Your task to perform on an android device: Open eBay Image 0: 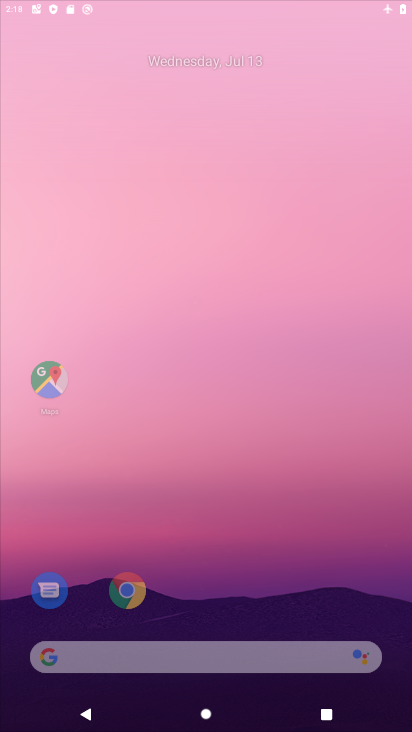
Step 0: drag from (175, 309) to (179, 179)
Your task to perform on an android device: Open eBay Image 1: 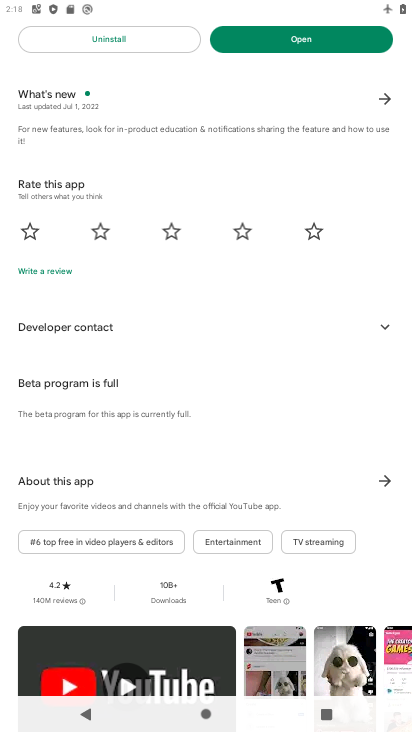
Step 1: press back button
Your task to perform on an android device: Open eBay Image 2: 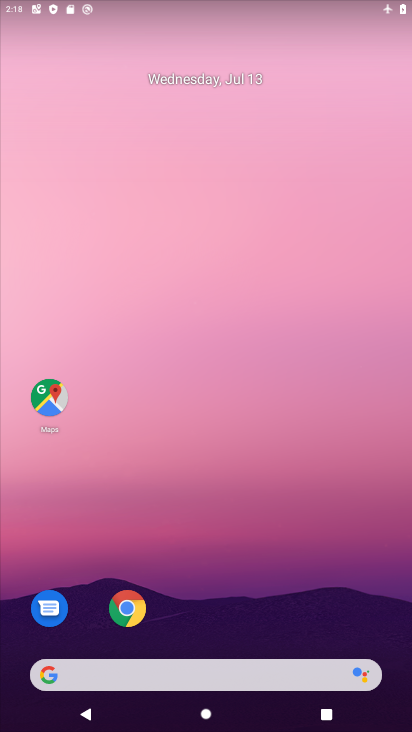
Step 2: drag from (229, 565) to (239, 148)
Your task to perform on an android device: Open eBay Image 3: 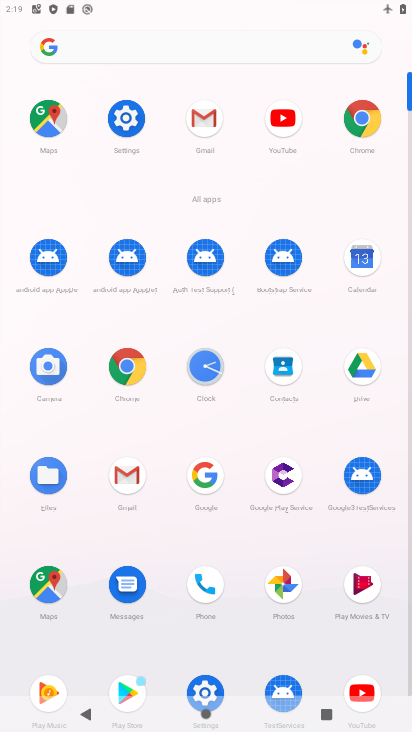
Step 3: click (359, 137)
Your task to perform on an android device: Open eBay Image 4: 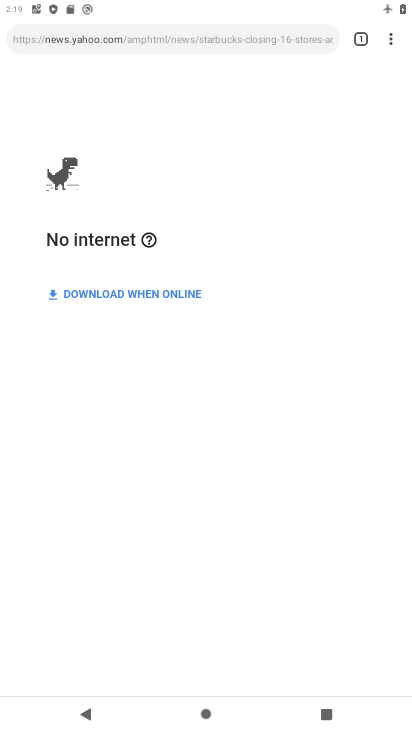
Step 4: press back button
Your task to perform on an android device: Open eBay Image 5: 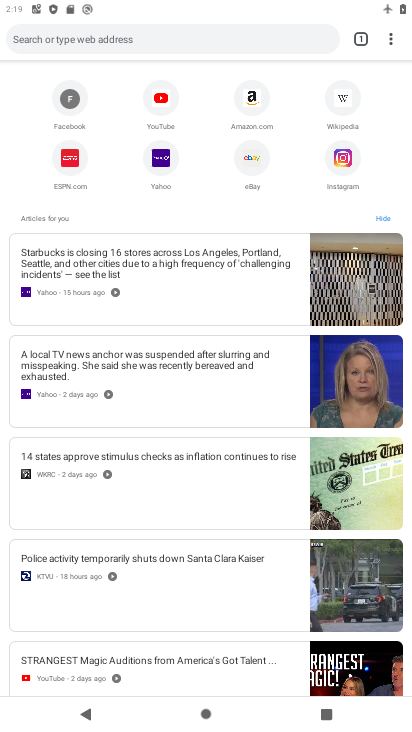
Step 5: click (245, 162)
Your task to perform on an android device: Open eBay Image 6: 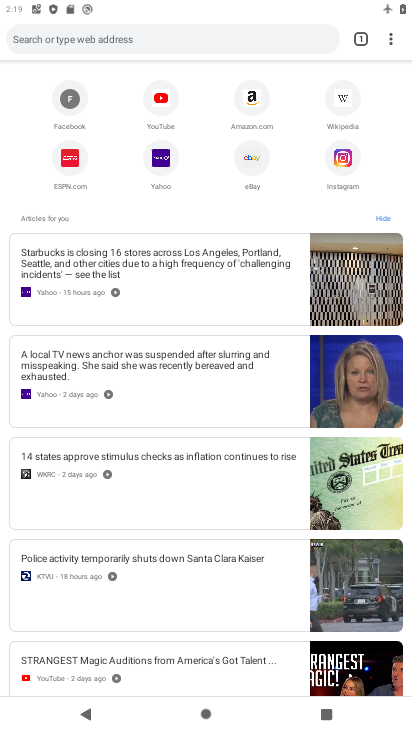
Step 6: click (247, 157)
Your task to perform on an android device: Open eBay Image 7: 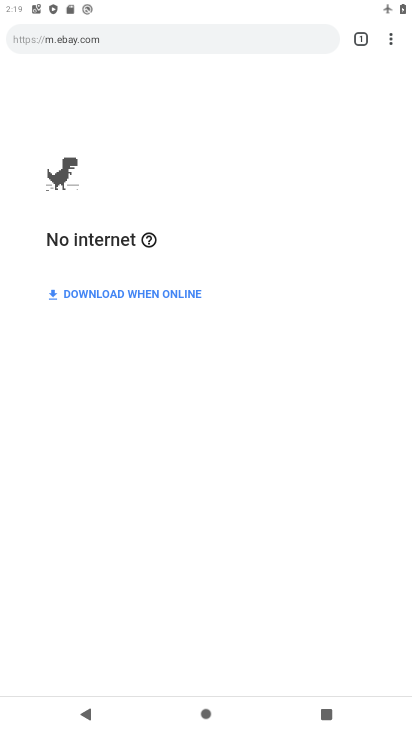
Step 7: press back button
Your task to perform on an android device: Open eBay Image 8: 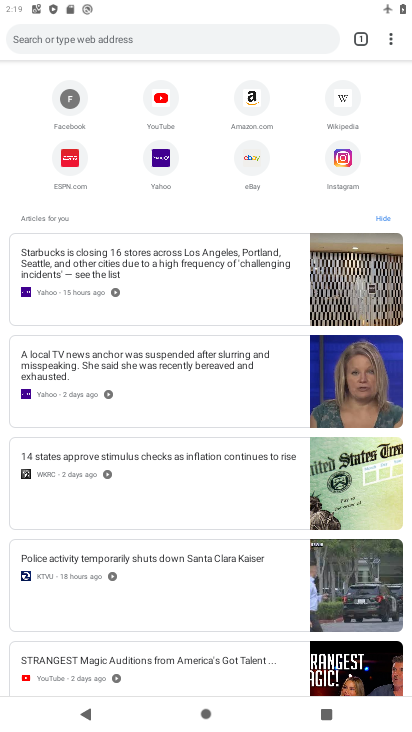
Step 8: press back button
Your task to perform on an android device: Open eBay Image 9: 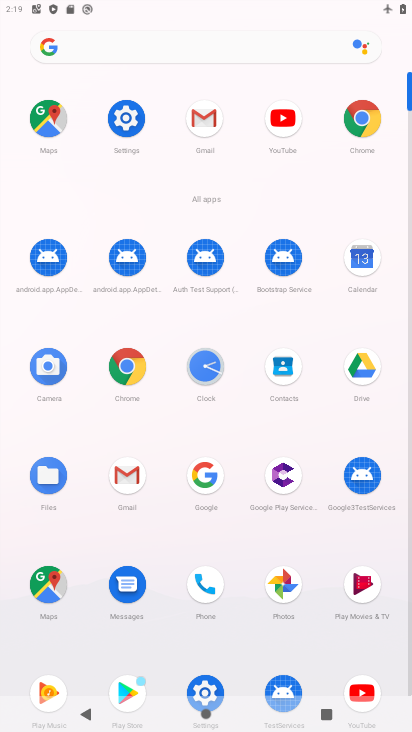
Step 9: click (121, 118)
Your task to perform on an android device: Open eBay Image 10: 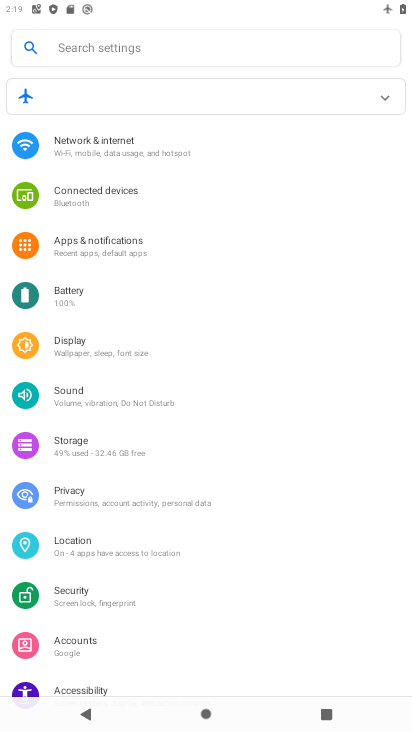
Step 10: click (68, 610)
Your task to perform on an android device: Open eBay Image 11: 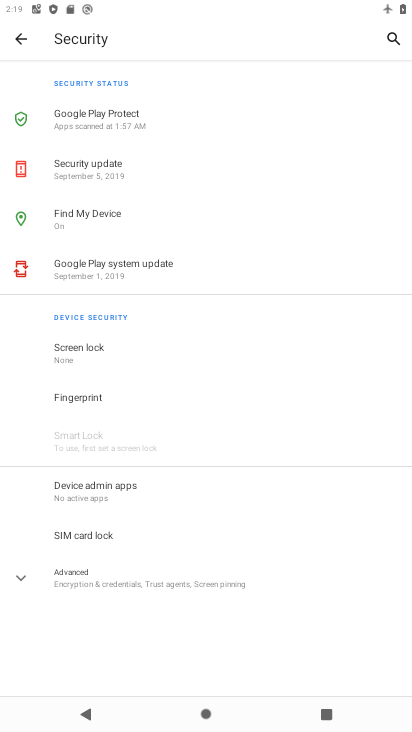
Step 11: click (20, 36)
Your task to perform on an android device: Open eBay Image 12: 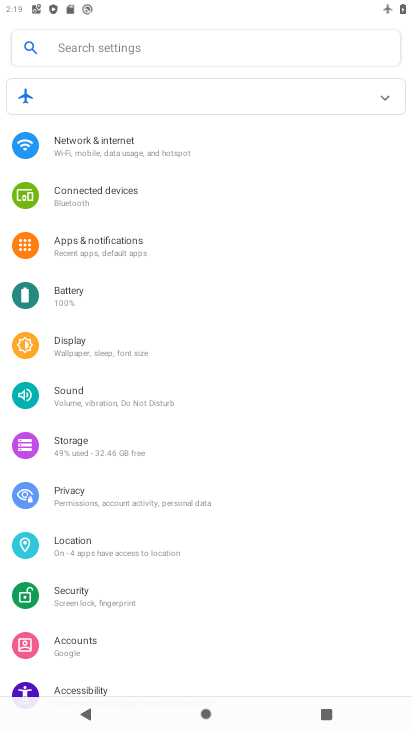
Step 12: drag from (70, 581) to (122, 256)
Your task to perform on an android device: Open eBay Image 13: 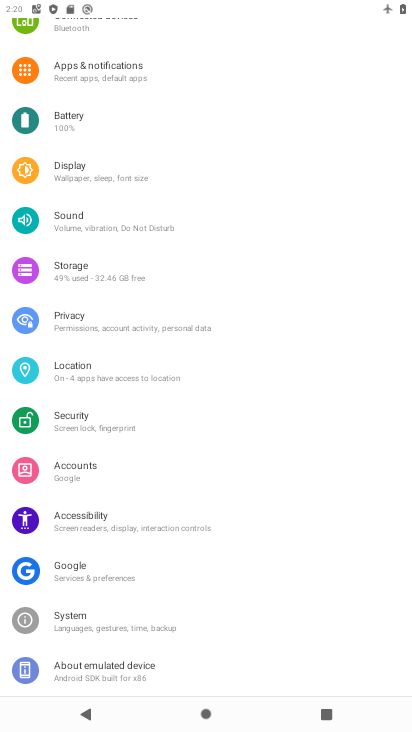
Step 13: drag from (160, 118) to (190, 615)
Your task to perform on an android device: Open eBay Image 14: 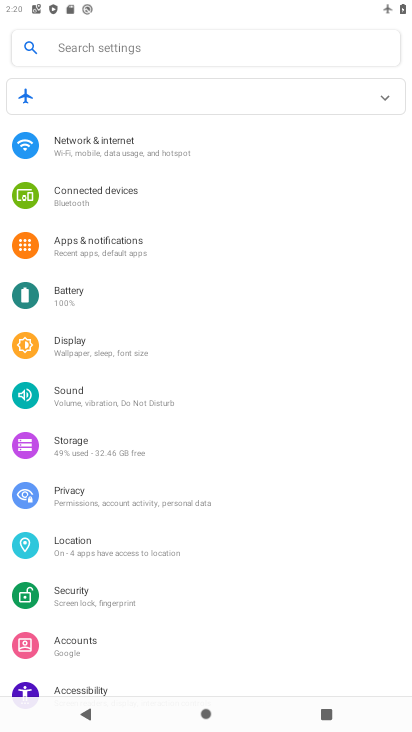
Step 14: click (386, 99)
Your task to perform on an android device: Open eBay Image 15: 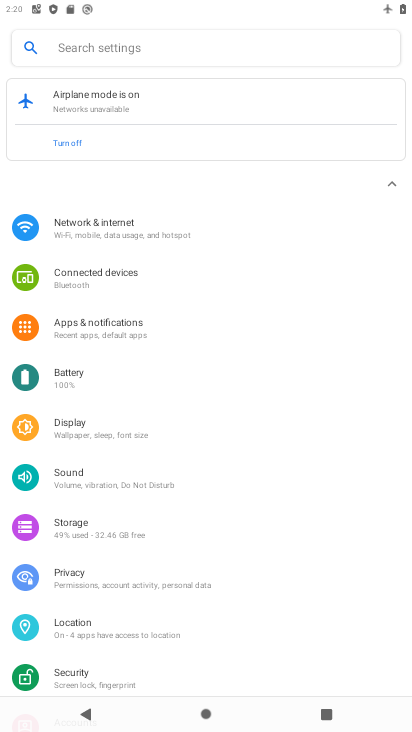
Step 15: click (66, 142)
Your task to perform on an android device: Open eBay Image 16: 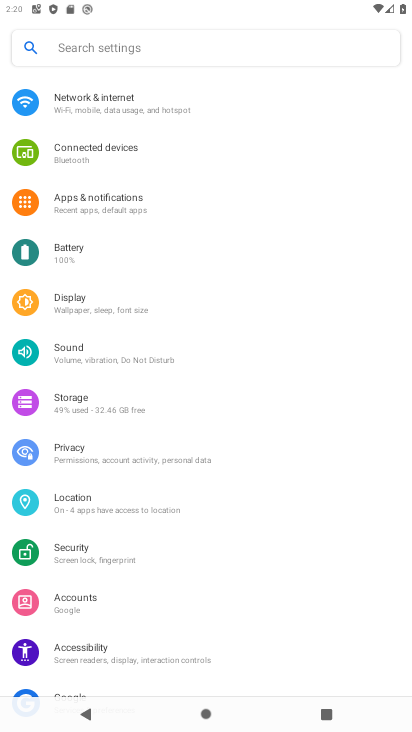
Step 16: press back button
Your task to perform on an android device: Open eBay Image 17: 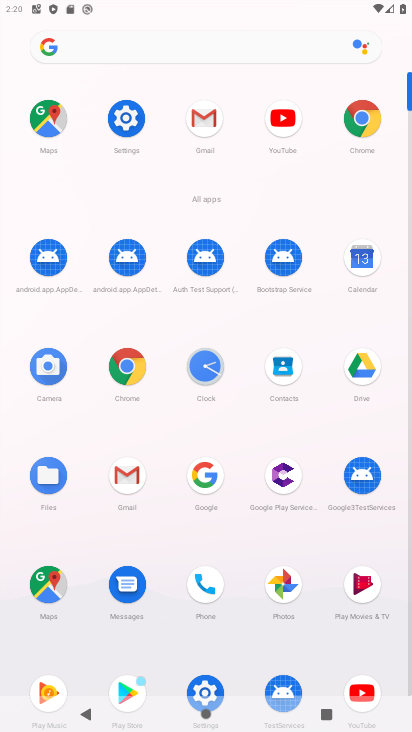
Step 17: click (365, 125)
Your task to perform on an android device: Open eBay Image 18: 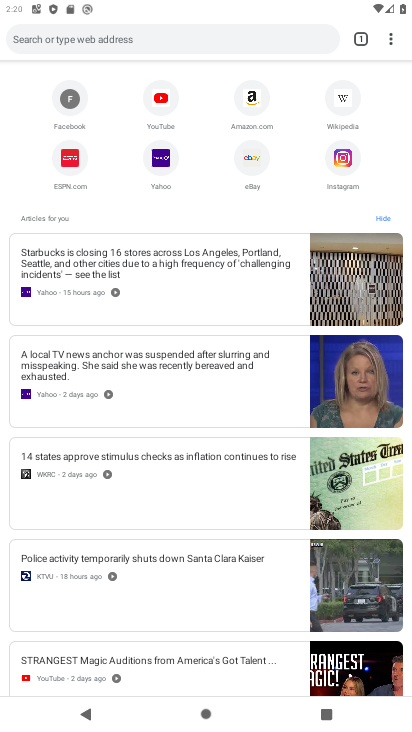
Step 18: click (247, 176)
Your task to perform on an android device: Open eBay Image 19: 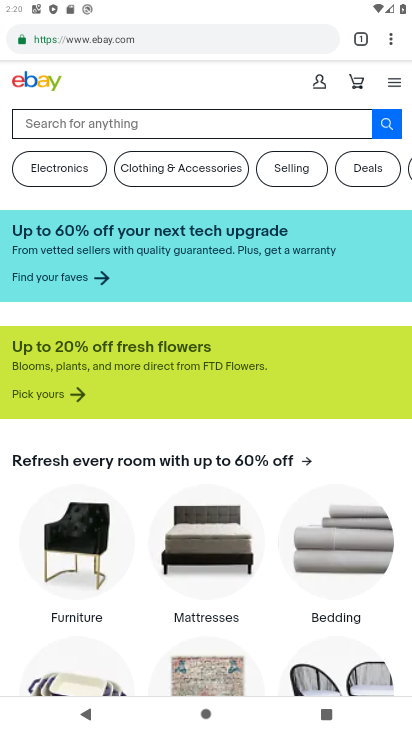
Step 19: task complete